Your task to perform on an android device: check data usage Image 0: 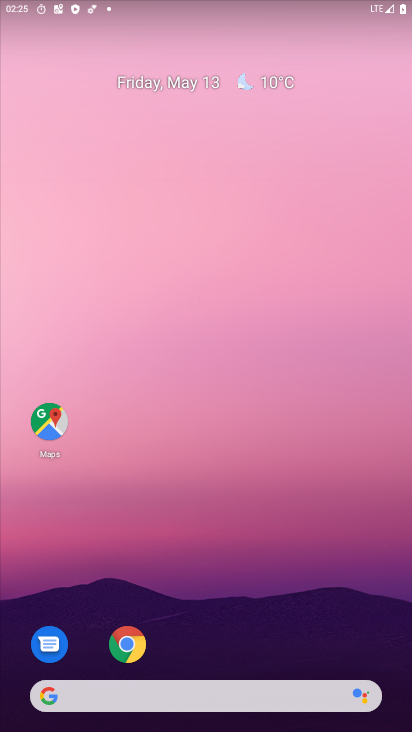
Step 0: drag from (166, 601) to (174, 85)
Your task to perform on an android device: check data usage Image 1: 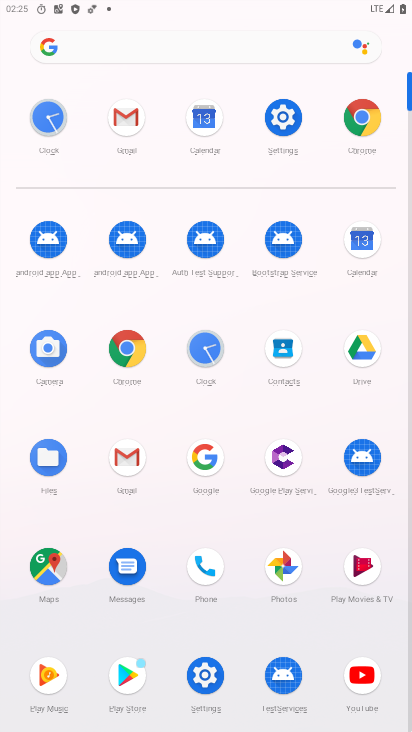
Step 1: click (282, 119)
Your task to perform on an android device: check data usage Image 2: 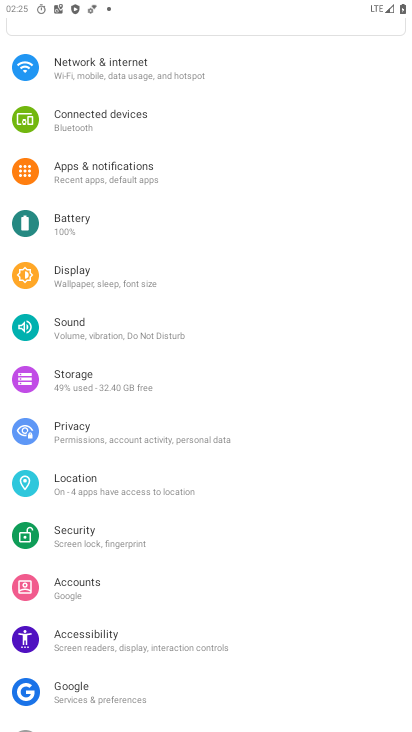
Step 2: click (180, 71)
Your task to perform on an android device: check data usage Image 3: 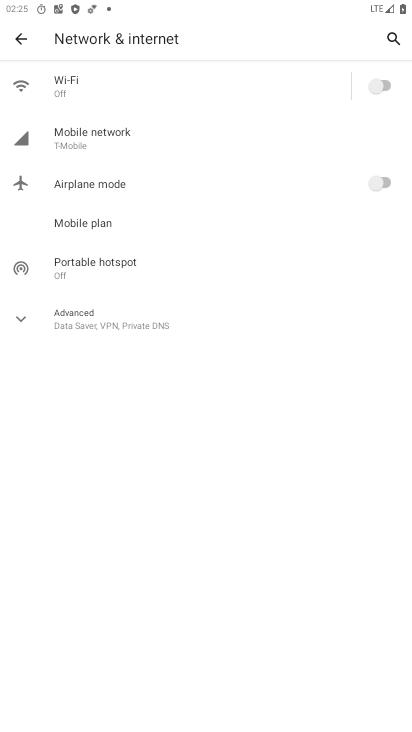
Step 3: click (115, 140)
Your task to perform on an android device: check data usage Image 4: 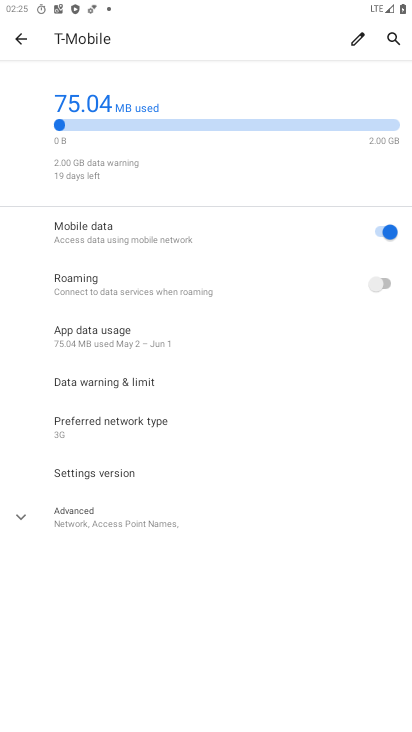
Step 4: click (114, 334)
Your task to perform on an android device: check data usage Image 5: 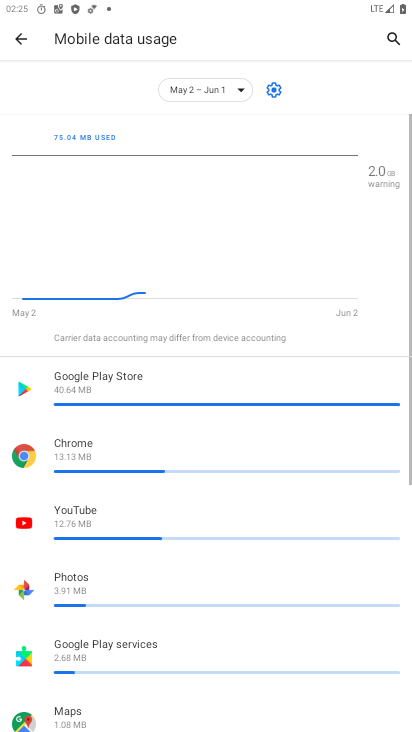
Step 5: task complete